Your task to perform on an android device: Open Google Maps and go to "Timeline" Image 0: 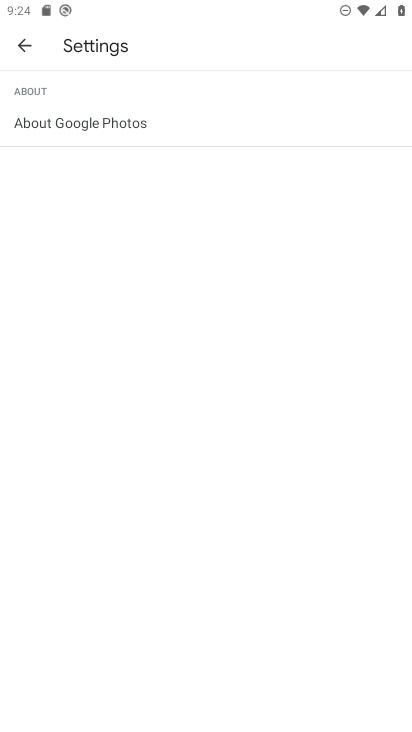
Step 0: press home button
Your task to perform on an android device: Open Google Maps and go to "Timeline" Image 1: 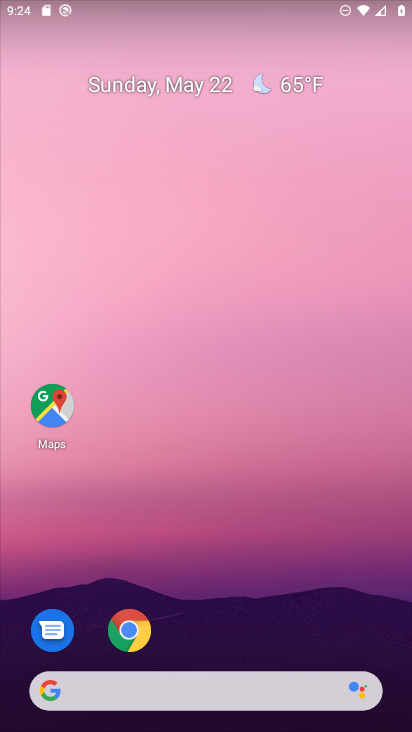
Step 1: click (45, 407)
Your task to perform on an android device: Open Google Maps and go to "Timeline" Image 2: 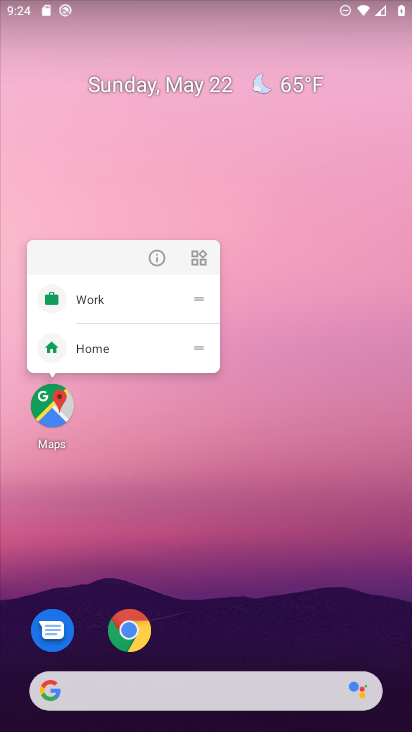
Step 2: click (56, 416)
Your task to perform on an android device: Open Google Maps and go to "Timeline" Image 3: 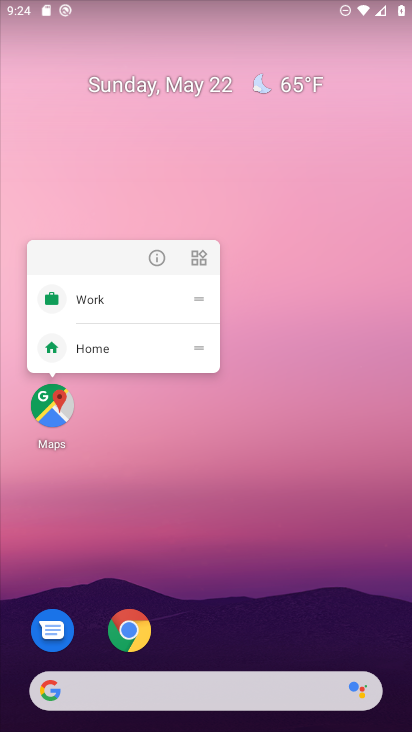
Step 3: click (54, 414)
Your task to perform on an android device: Open Google Maps and go to "Timeline" Image 4: 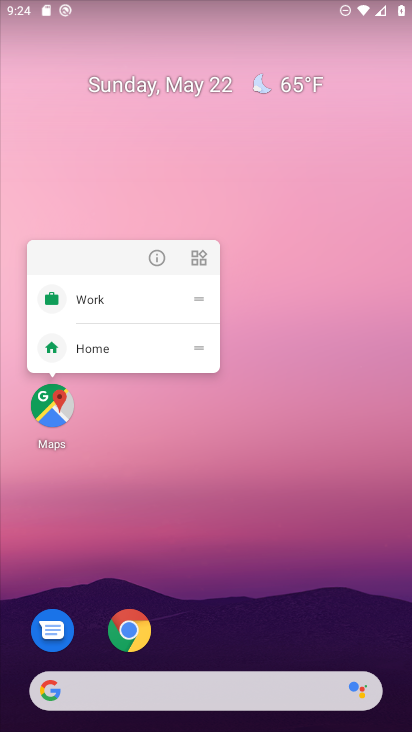
Step 4: click (54, 413)
Your task to perform on an android device: Open Google Maps and go to "Timeline" Image 5: 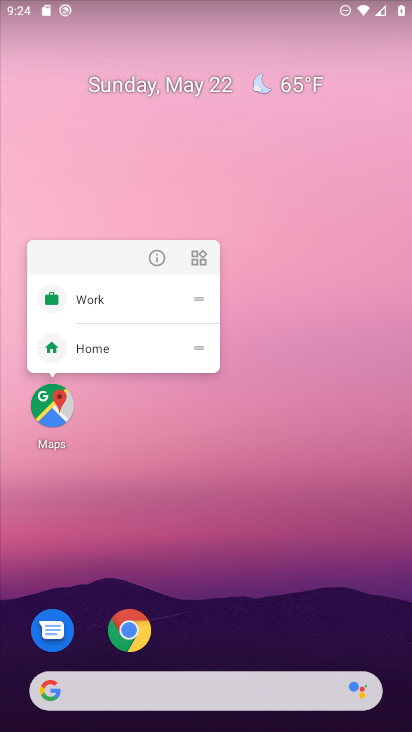
Step 5: click (49, 418)
Your task to perform on an android device: Open Google Maps and go to "Timeline" Image 6: 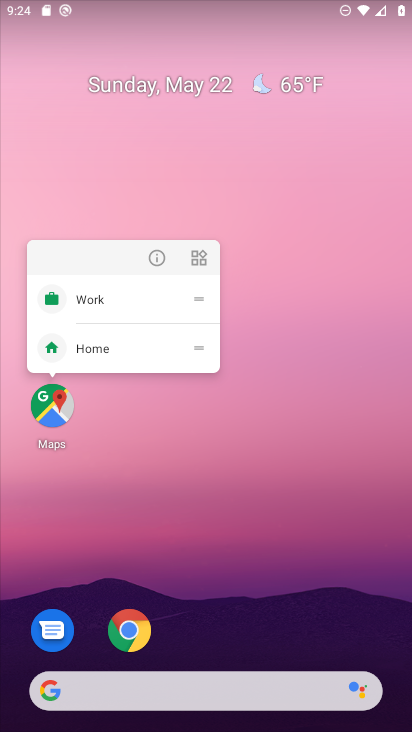
Step 6: click (47, 424)
Your task to perform on an android device: Open Google Maps and go to "Timeline" Image 7: 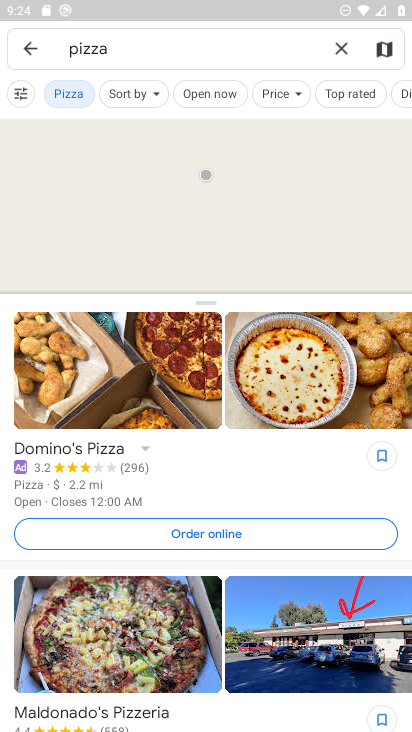
Step 7: click (31, 47)
Your task to perform on an android device: Open Google Maps and go to "Timeline" Image 8: 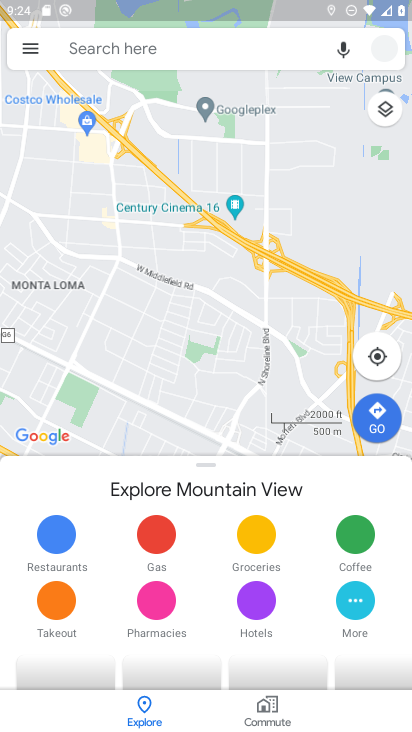
Step 8: click (30, 45)
Your task to perform on an android device: Open Google Maps and go to "Timeline" Image 9: 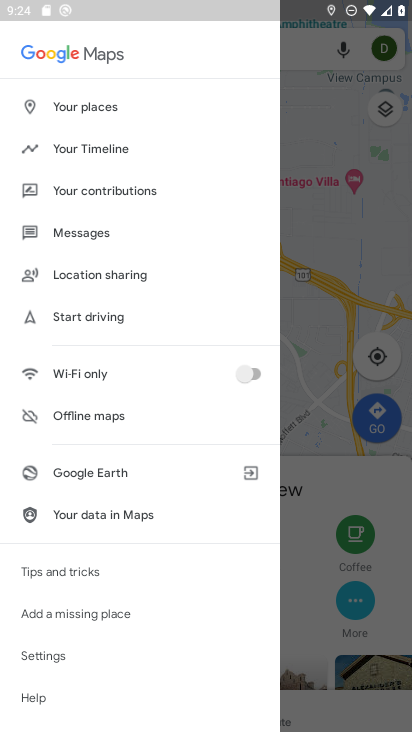
Step 9: click (102, 148)
Your task to perform on an android device: Open Google Maps and go to "Timeline" Image 10: 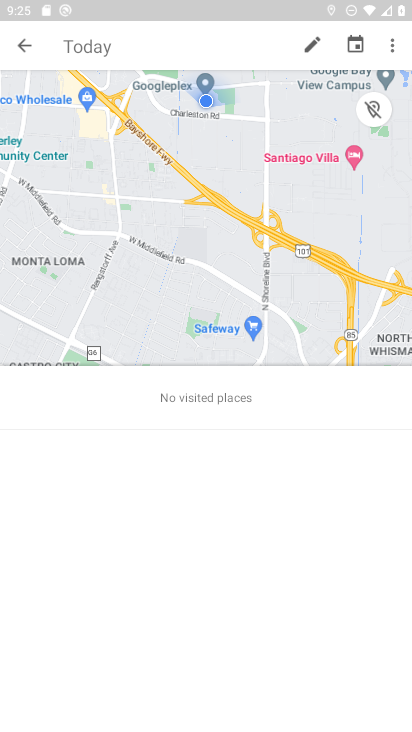
Step 10: task complete